Your task to perform on an android device: change the clock display to analog Image 0: 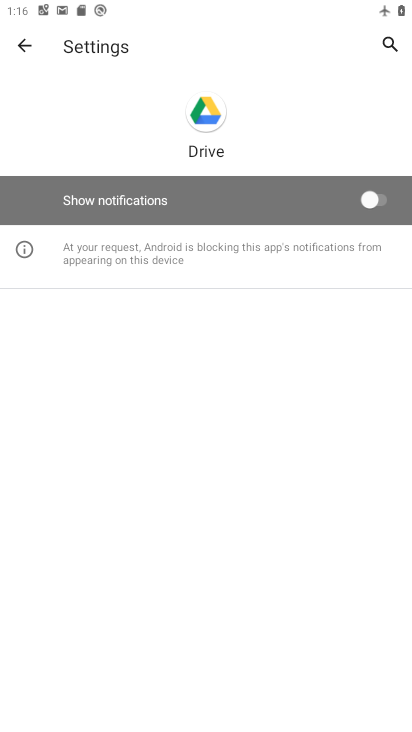
Step 0: press home button
Your task to perform on an android device: change the clock display to analog Image 1: 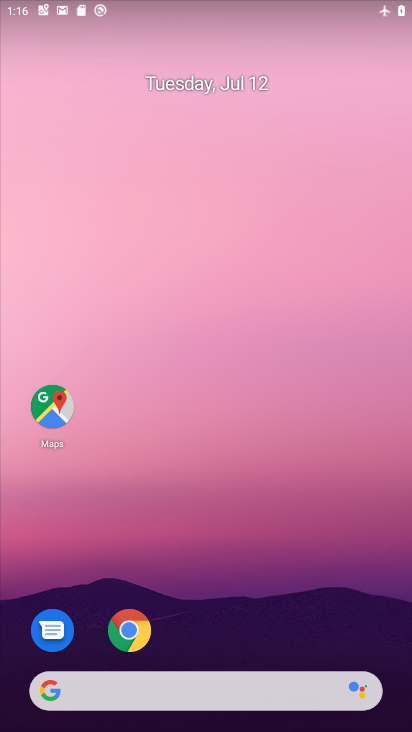
Step 1: drag from (206, 578) to (224, 394)
Your task to perform on an android device: change the clock display to analog Image 2: 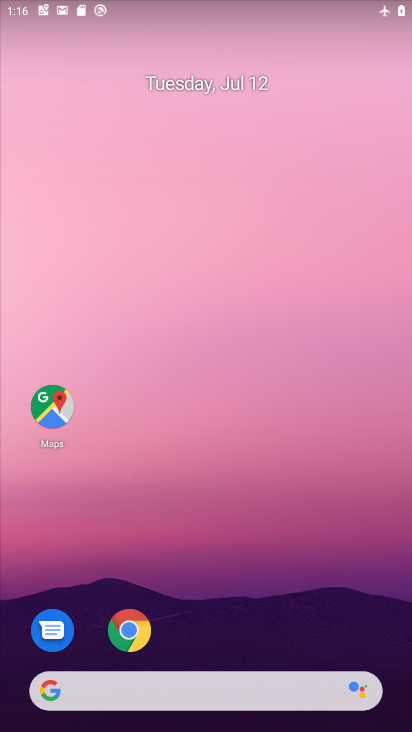
Step 2: drag from (200, 617) to (230, 178)
Your task to perform on an android device: change the clock display to analog Image 3: 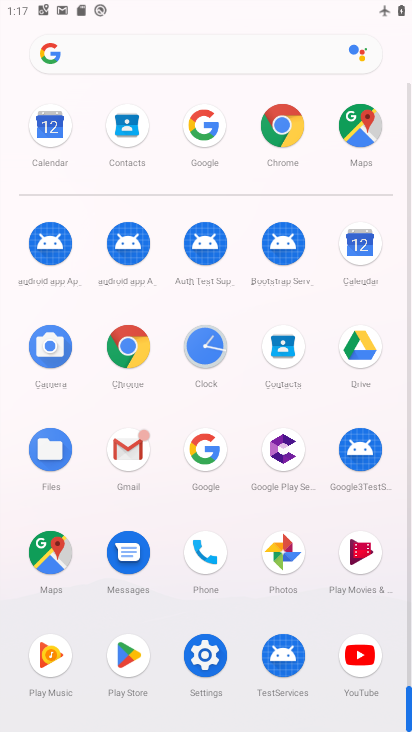
Step 3: click (213, 357)
Your task to perform on an android device: change the clock display to analog Image 4: 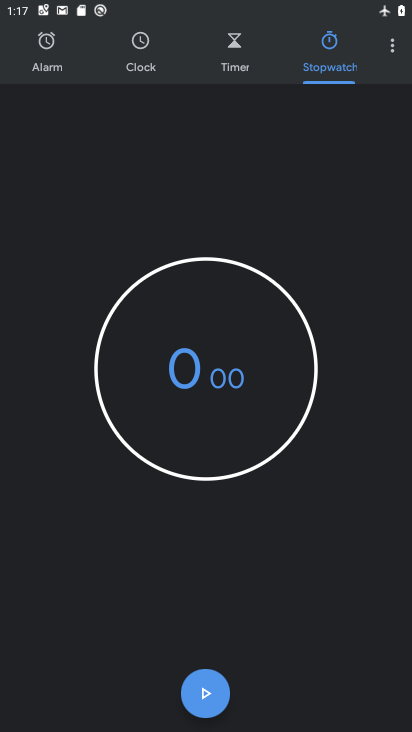
Step 4: click (394, 48)
Your task to perform on an android device: change the clock display to analog Image 5: 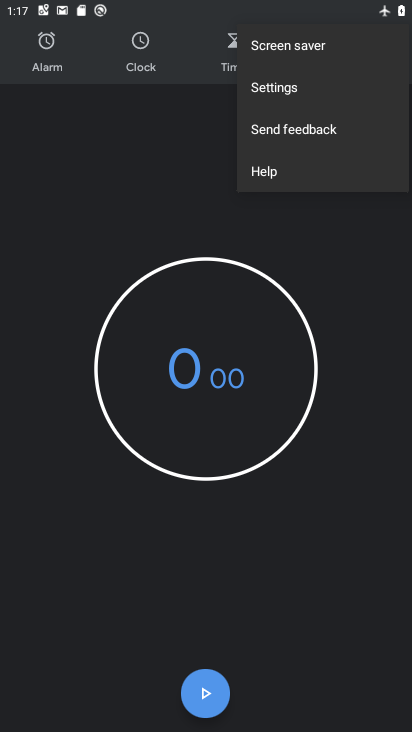
Step 5: click (289, 98)
Your task to perform on an android device: change the clock display to analog Image 6: 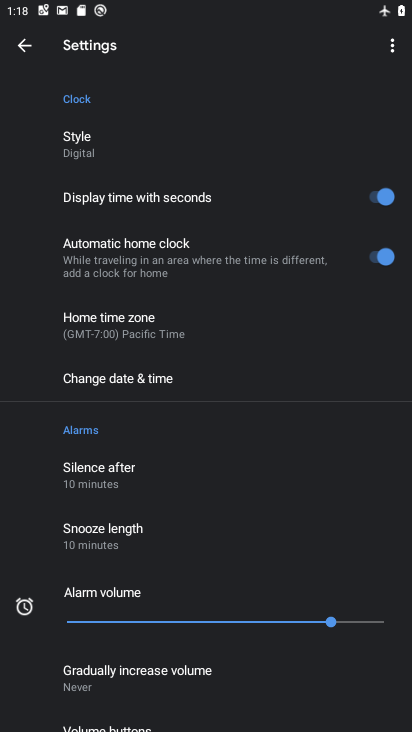
Step 6: click (106, 142)
Your task to perform on an android device: change the clock display to analog Image 7: 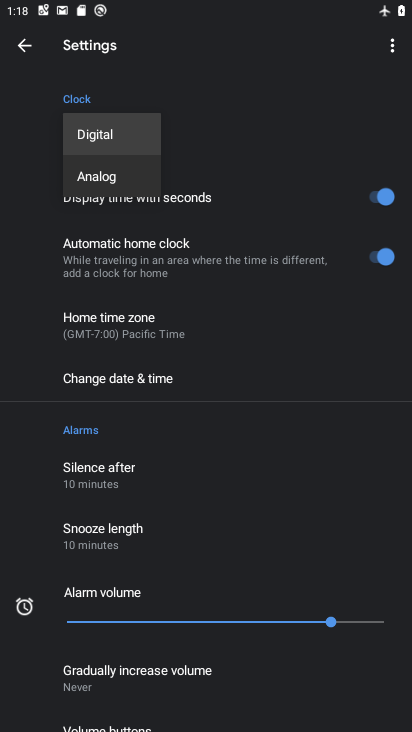
Step 7: click (99, 183)
Your task to perform on an android device: change the clock display to analog Image 8: 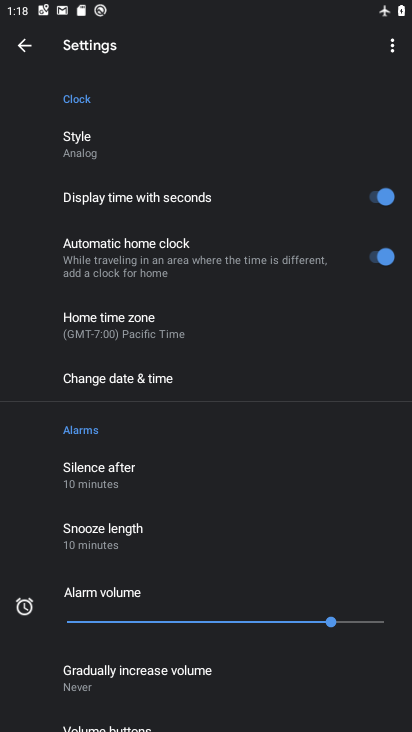
Step 8: task complete